Your task to perform on an android device: Open Reddit.com Image 0: 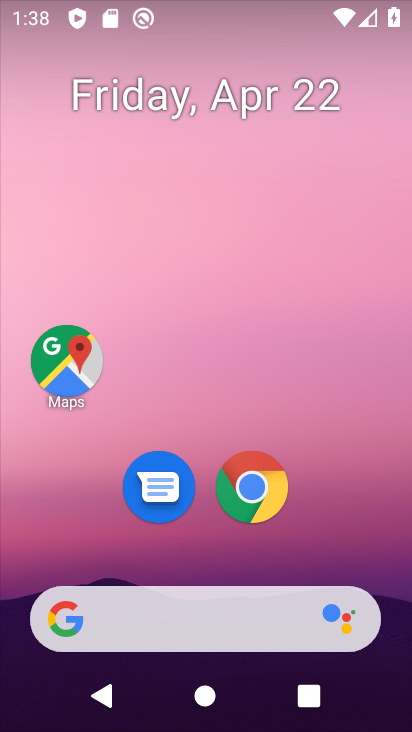
Step 0: click (241, 497)
Your task to perform on an android device: Open Reddit.com Image 1: 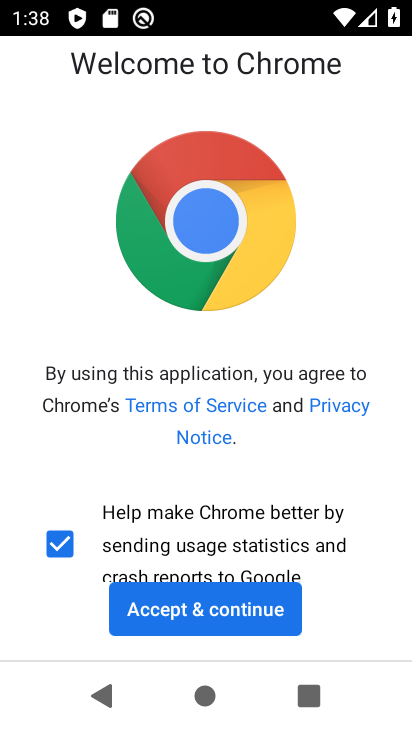
Step 1: click (265, 605)
Your task to perform on an android device: Open Reddit.com Image 2: 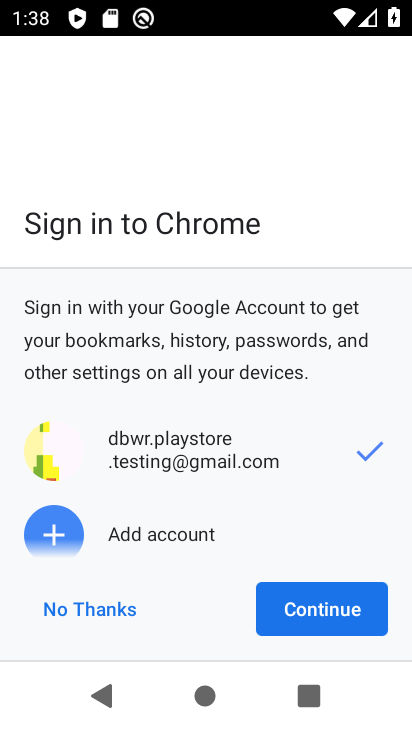
Step 2: click (352, 615)
Your task to perform on an android device: Open Reddit.com Image 3: 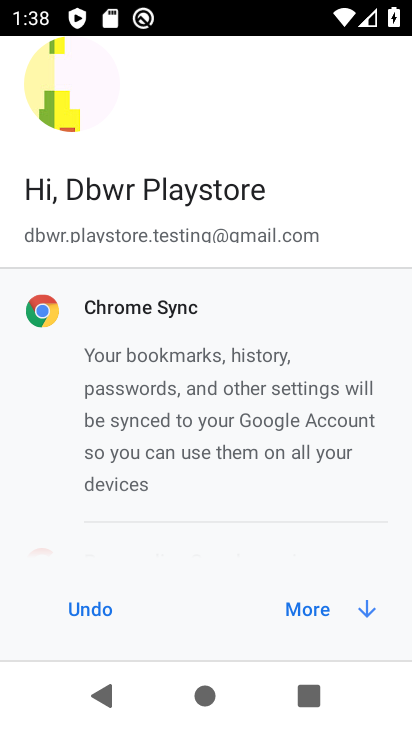
Step 3: click (354, 616)
Your task to perform on an android device: Open Reddit.com Image 4: 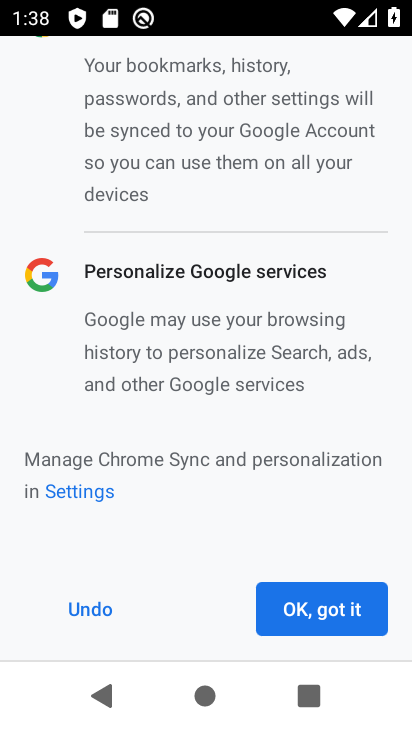
Step 4: click (355, 615)
Your task to perform on an android device: Open Reddit.com Image 5: 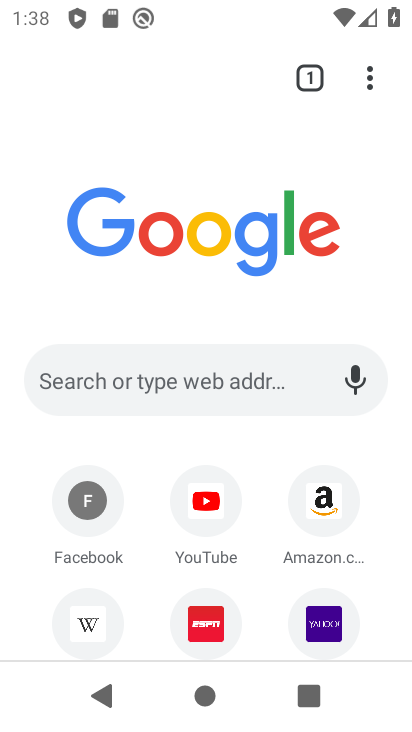
Step 5: click (197, 381)
Your task to perform on an android device: Open Reddit.com Image 6: 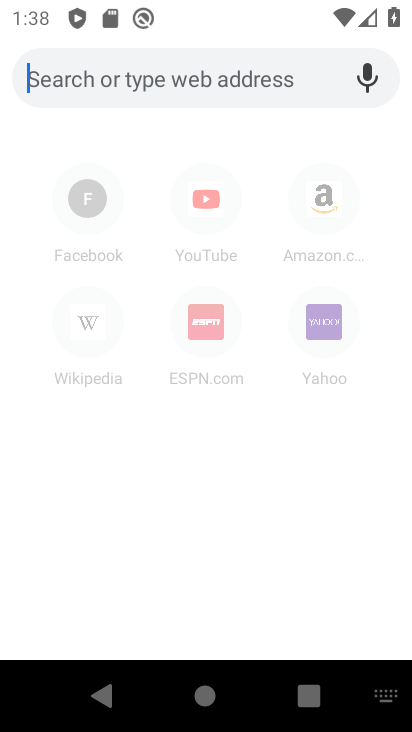
Step 6: type "reddit.com"
Your task to perform on an android device: Open Reddit.com Image 7: 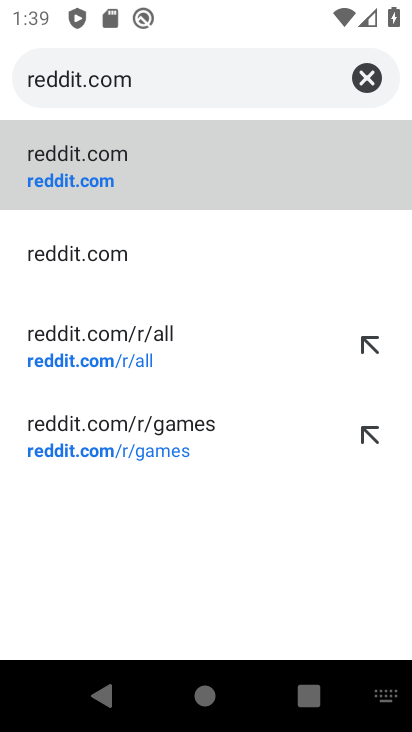
Step 7: click (111, 166)
Your task to perform on an android device: Open Reddit.com Image 8: 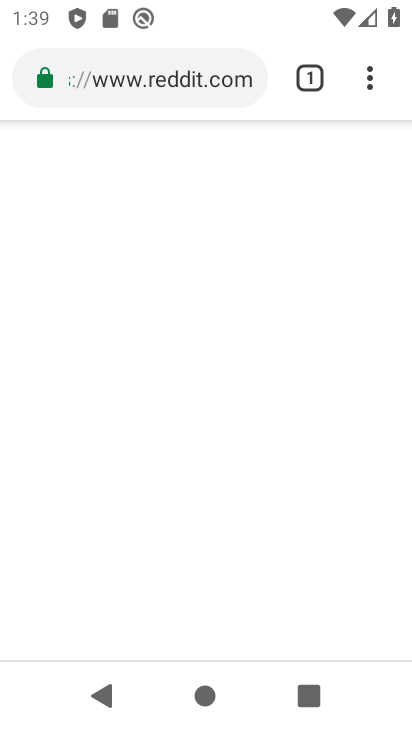
Step 8: task complete